Your task to perform on an android device: turn on location history Image 0: 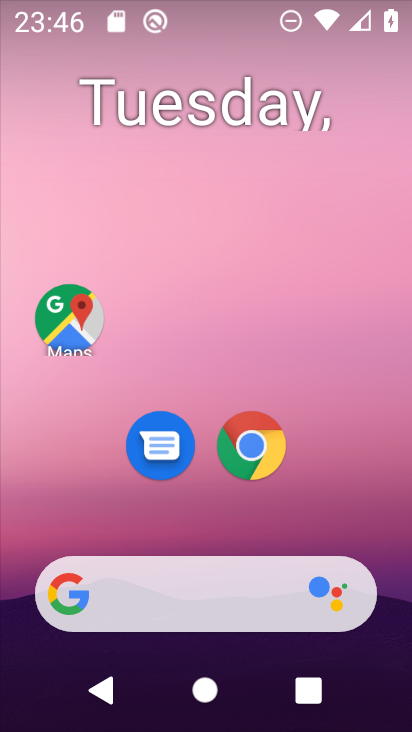
Step 0: drag from (290, 531) to (339, 87)
Your task to perform on an android device: turn on location history Image 1: 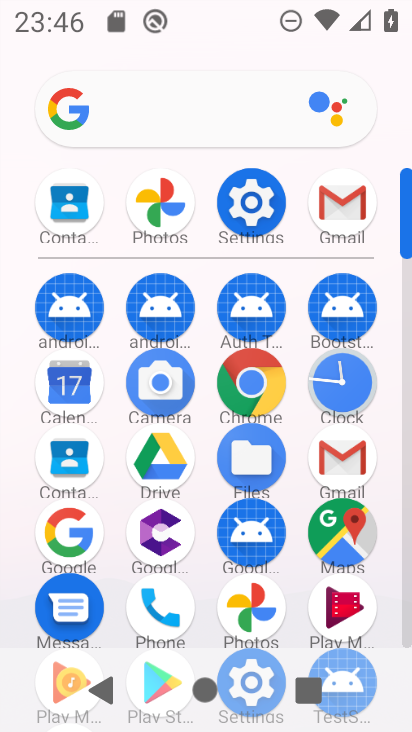
Step 1: click (254, 204)
Your task to perform on an android device: turn on location history Image 2: 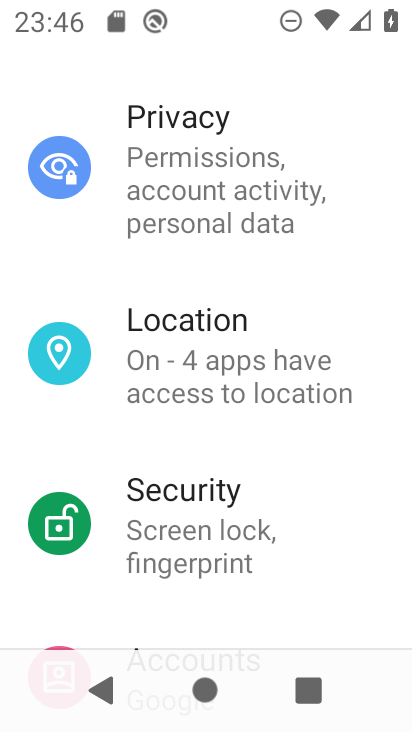
Step 2: click (230, 384)
Your task to perform on an android device: turn on location history Image 3: 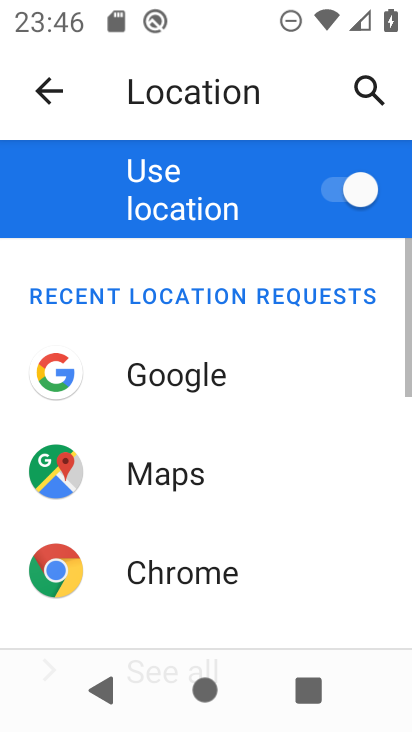
Step 3: drag from (290, 581) to (310, 141)
Your task to perform on an android device: turn on location history Image 4: 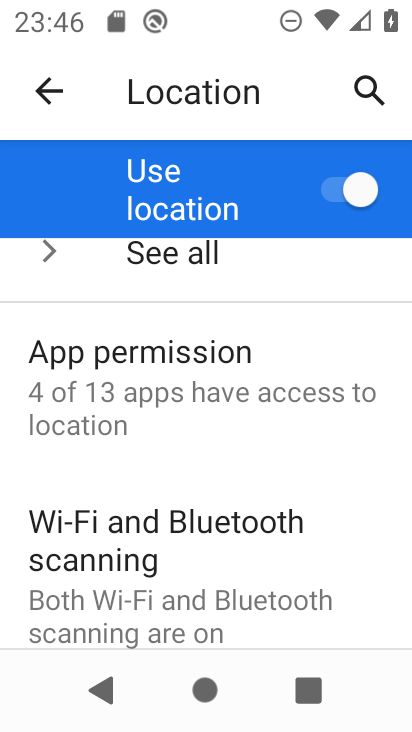
Step 4: drag from (247, 512) to (236, 146)
Your task to perform on an android device: turn on location history Image 5: 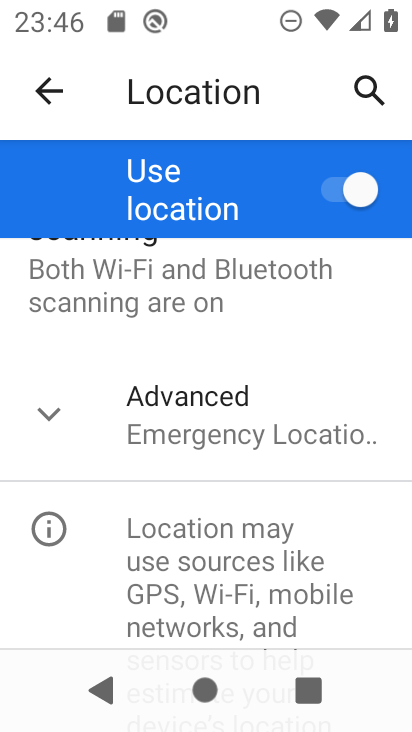
Step 5: click (230, 433)
Your task to perform on an android device: turn on location history Image 6: 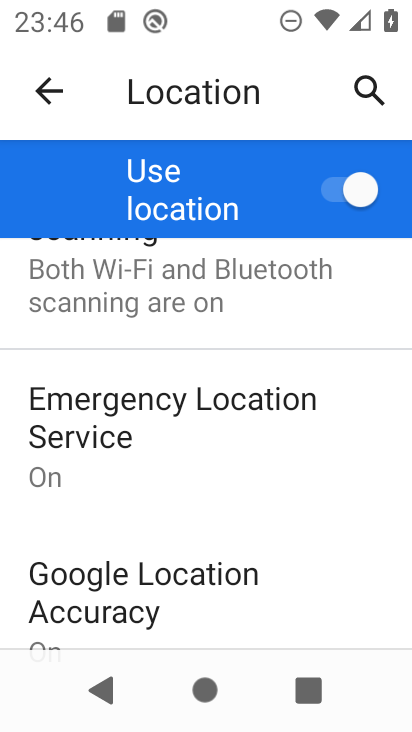
Step 6: drag from (262, 581) to (265, 266)
Your task to perform on an android device: turn on location history Image 7: 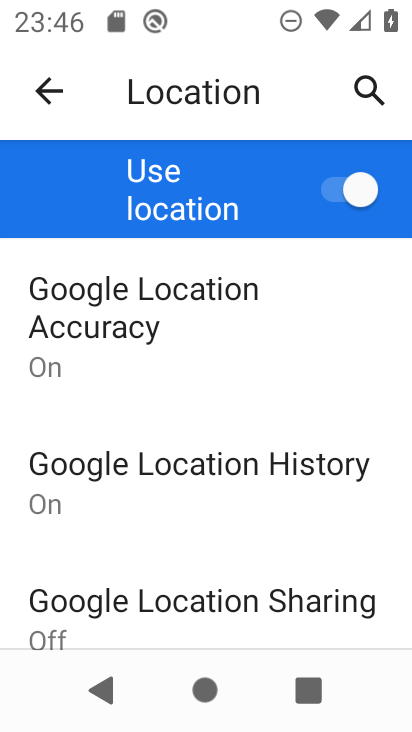
Step 7: click (301, 498)
Your task to perform on an android device: turn on location history Image 8: 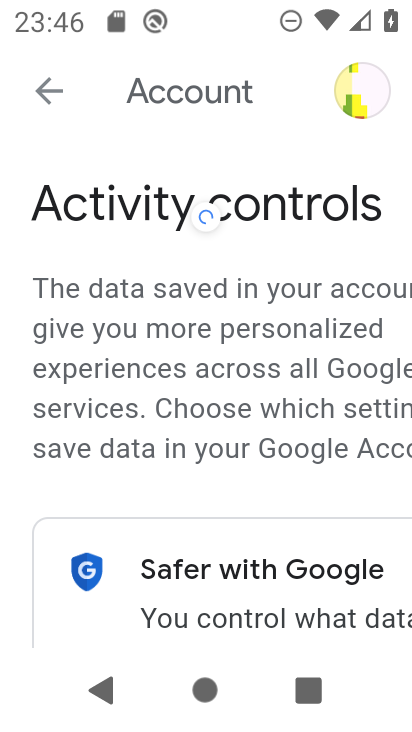
Step 8: task complete